Your task to perform on an android device: Open calendar and show me the first week of next month Image 0: 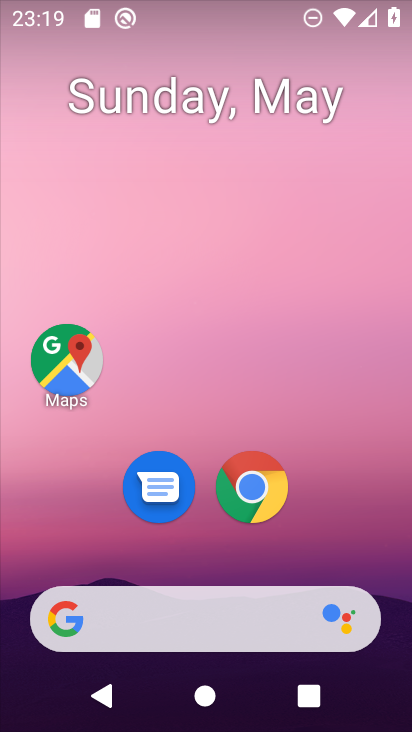
Step 0: drag from (364, 529) to (320, 163)
Your task to perform on an android device: Open calendar and show me the first week of next month Image 1: 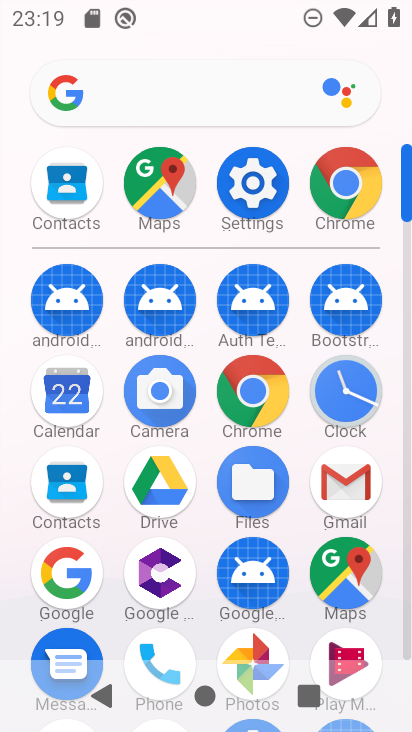
Step 1: click (81, 409)
Your task to perform on an android device: Open calendar and show me the first week of next month Image 2: 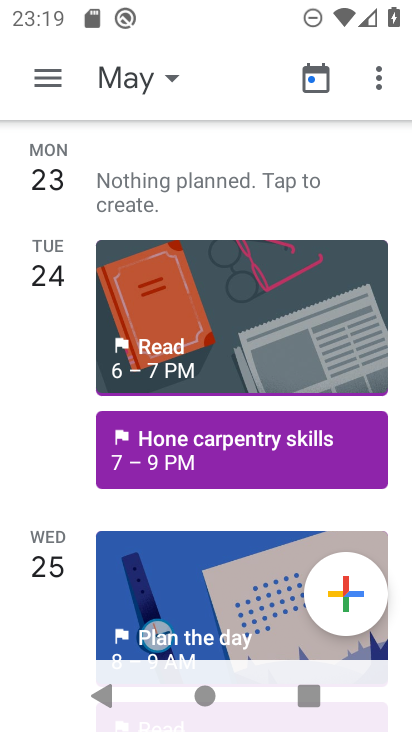
Step 2: click (46, 79)
Your task to perform on an android device: Open calendar and show me the first week of next month Image 3: 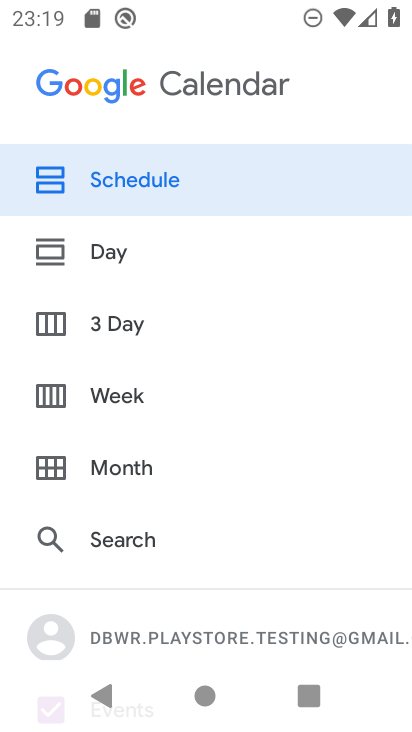
Step 3: click (116, 394)
Your task to perform on an android device: Open calendar and show me the first week of next month Image 4: 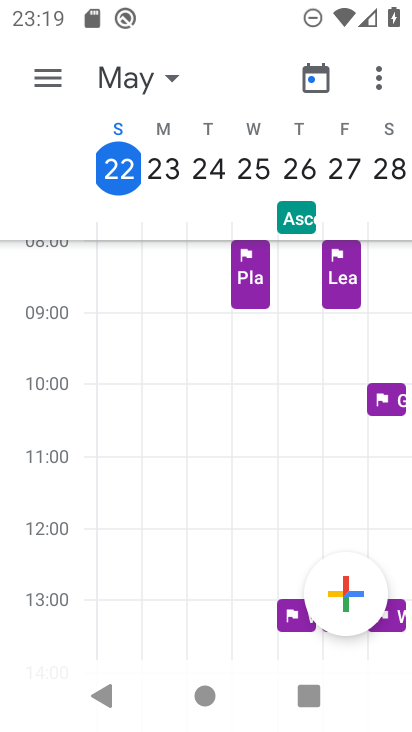
Step 4: click (167, 75)
Your task to perform on an android device: Open calendar and show me the first week of next month Image 5: 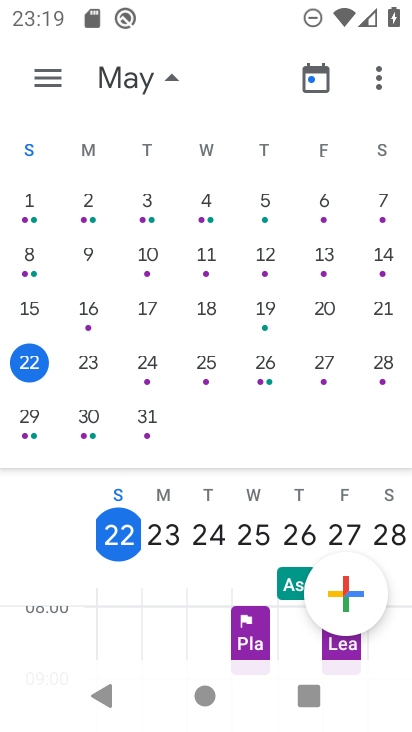
Step 5: drag from (390, 283) to (30, 279)
Your task to perform on an android device: Open calendar and show me the first week of next month Image 6: 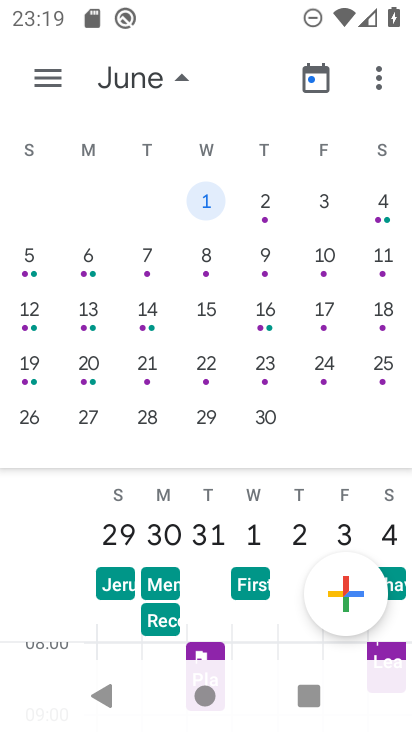
Step 6: click (207, 187)
Your task to perform on an android device: Open calendar and show me the first week of next month Image 7: 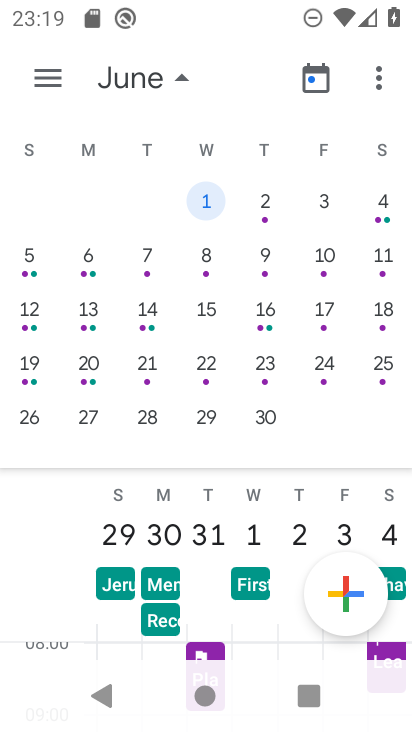
Step 7: click (167, 84)
Your task to perform on an android device: Open calendar and show me the first week of next month Image 8: 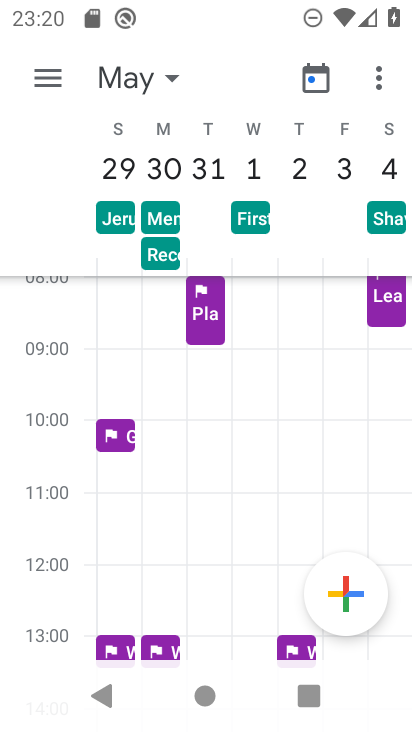
Step 8: task complete